Your task to perform on an android device: all mails in gmail Image 0: 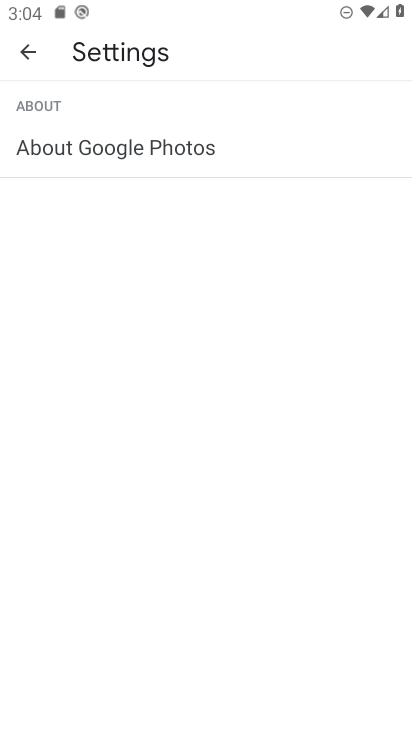
Step 0: press home button
Your task to perform on an android device: all mails in gmail Image 1: 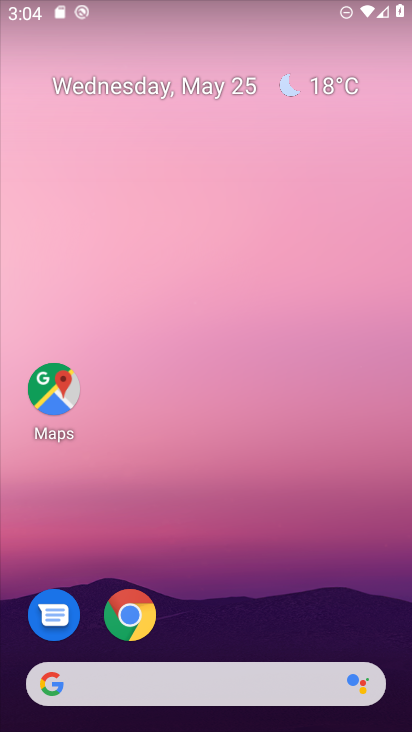
Step 1: drag from (210, 570) to (261, 36)
Your task to perform on an android device: all mails in gmail Image 2: 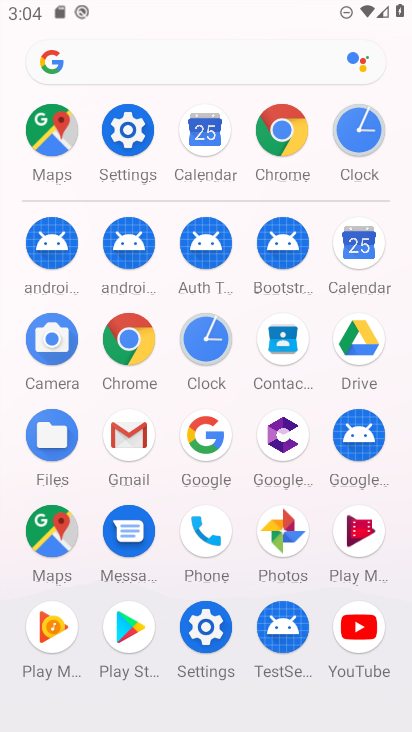
Step 2: click (132, 431)
Your task to perform on an android device: all mails in gmail Image 3: 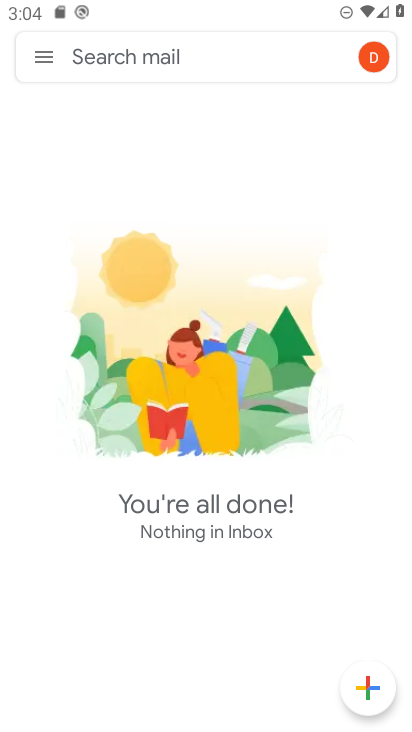
Step 3: click (50, 54)
Your task to perform on an android device: all mails in gmail Image 4: 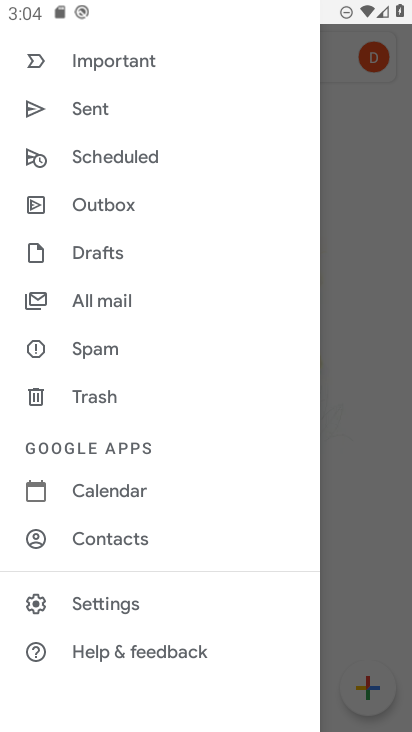
Step 4: click (90, 299)
Your task to perform on an android device: all mails in gmail Image 5: 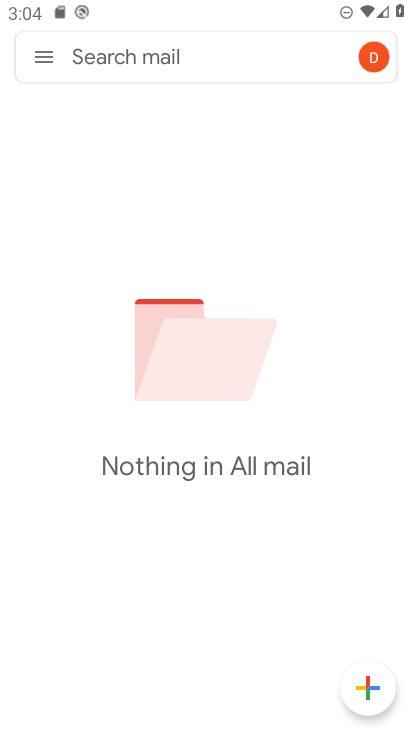
Step 5: task complete